Your task to perform on an android device: Open the map Image 0: 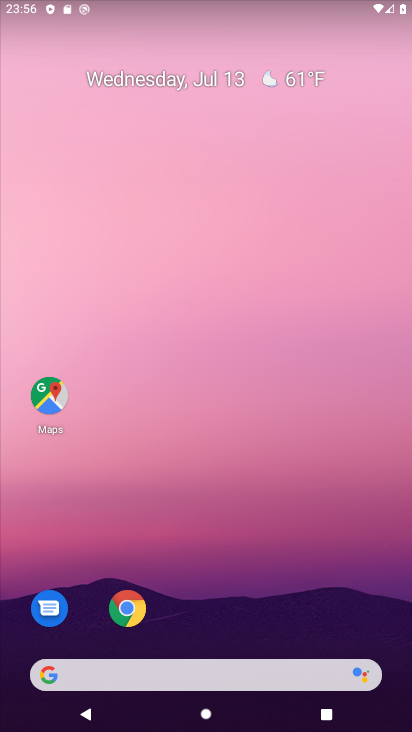
Step 0: drag from (215, 650) to (165, 451)
Your task to perform on an android device: Open the map Image 1: 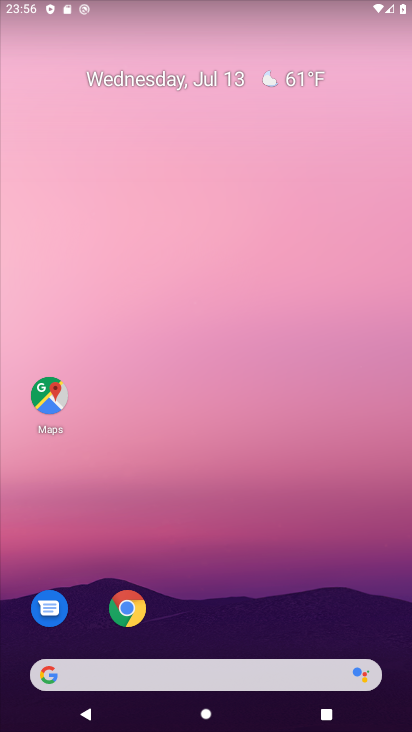
Step 1: drag from (180, 638) to (189, 126)
Your task to perform on an android device: Open the map Image 2: 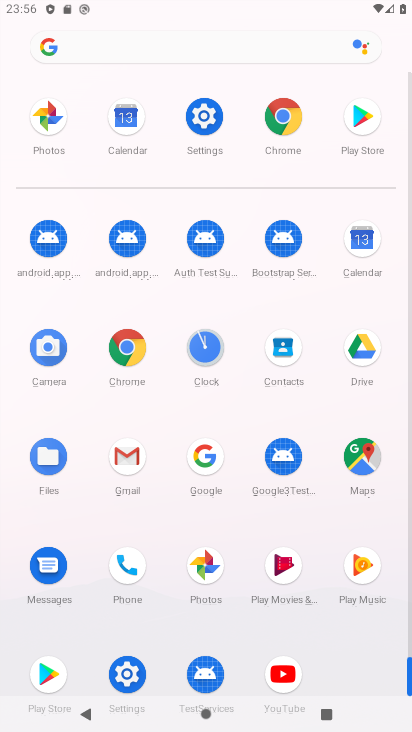
Step 2: click (362, 455)
Your task to perform on an android device: Open the map Image 3: 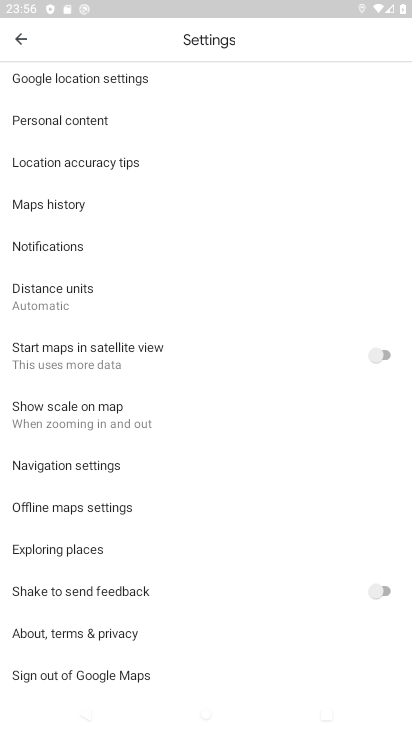
Step 3: click (21, 30)
Your task to perform on an android device: Open the map Image 4: 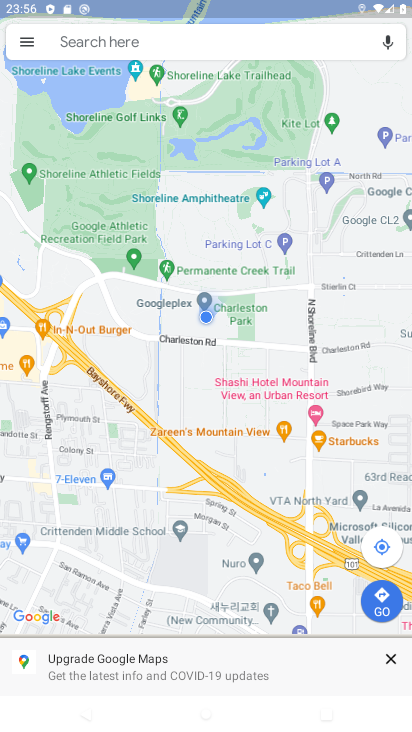
Step 4: task complete